Your task to perform on an android device: Open Wikipedia Image 0: 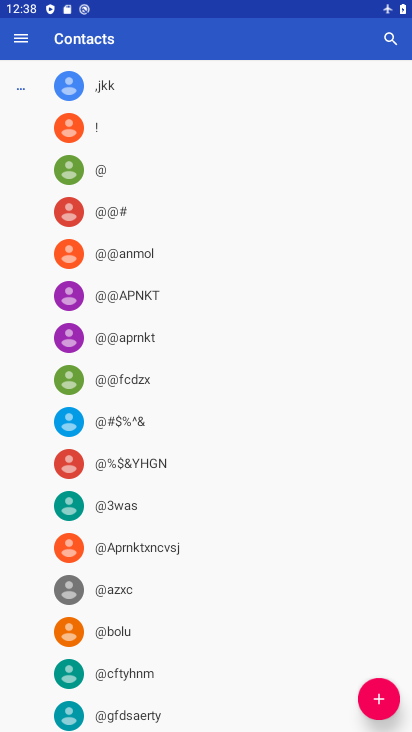
Step 0: press home button
Your task to perform on an android device: Open Wikipedia Image 1: 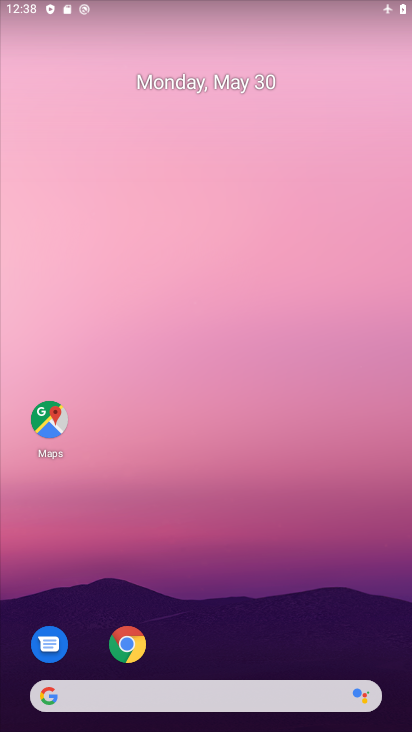
Step 1: drag from (357, 606) to (342, 237)
Your task to perform on an android device: Open Wikipedia Image 2: 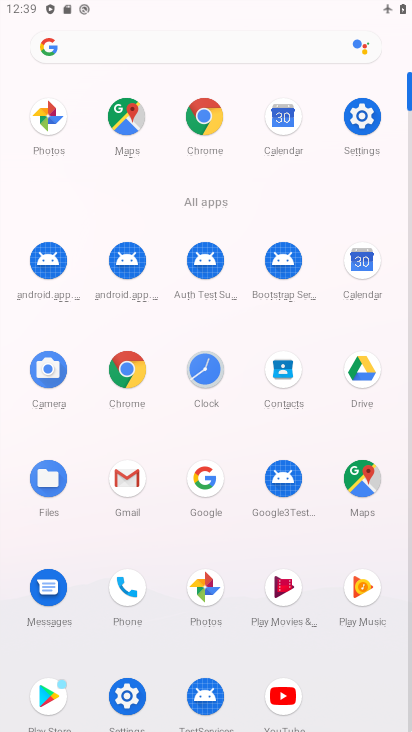
Step 2: click (118, 387)
Your task to perform on an android device: Open Wikipedia Image 3: 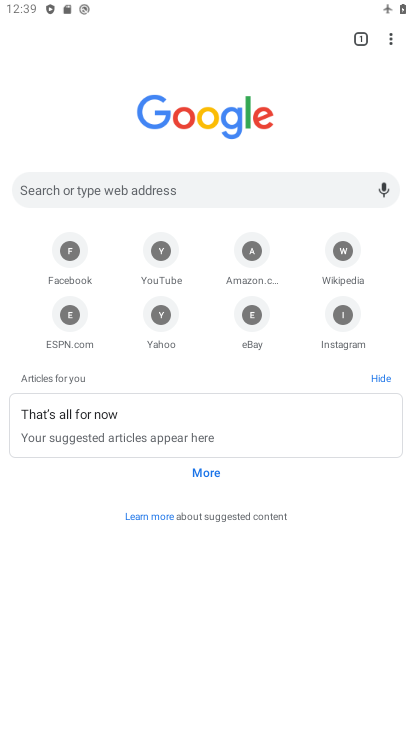
Step 3: click (356, 272)
Your task to perform on an android device: Open Wikipedia Image 4: 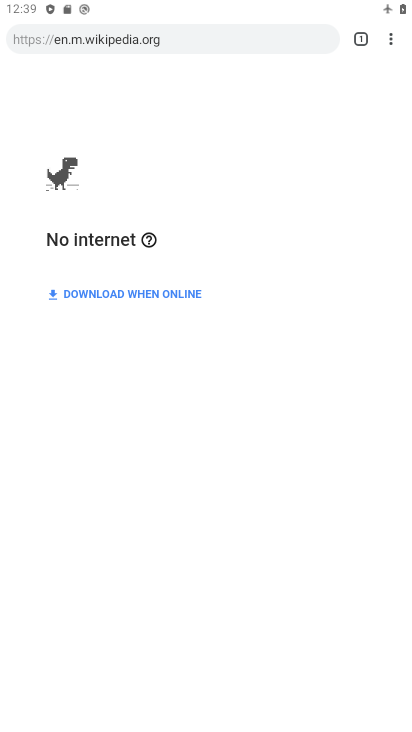
Step 4: task complete